Your task to perform on an android device: stop showing notifications on the lock screen Image 0: 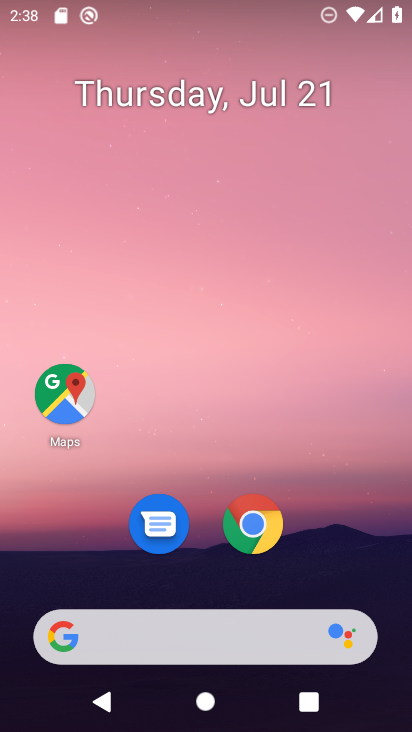
Step 0: drag from (224, 634) to (307, 123)
Your task to perform on an android device: stop showing notifications on the lock screen Image 1: 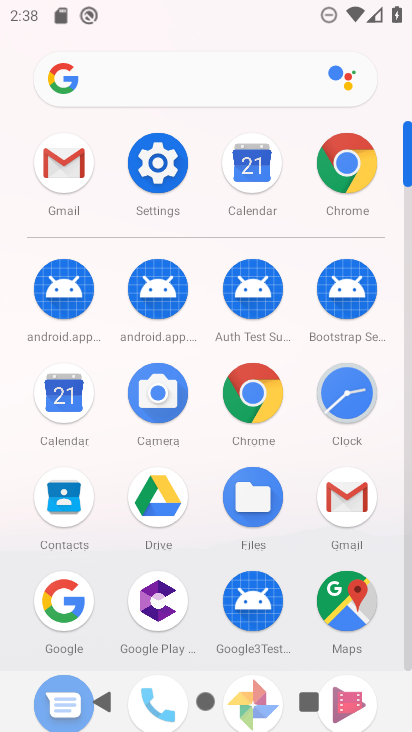
Step 1: click (149, 180)
Your task to perform on an android device: stop showing notifications on the lock screen Image 2: 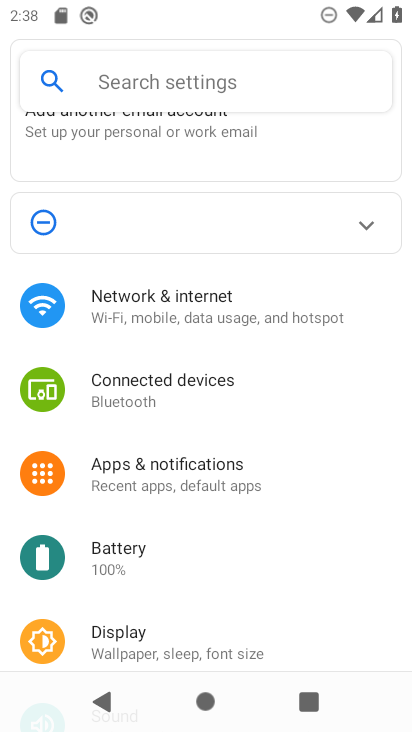
Step 2: drag from (207, 589) to (285, 157)
Your task to perform on an android device: stop showing notifications on the lock screen Image 3: 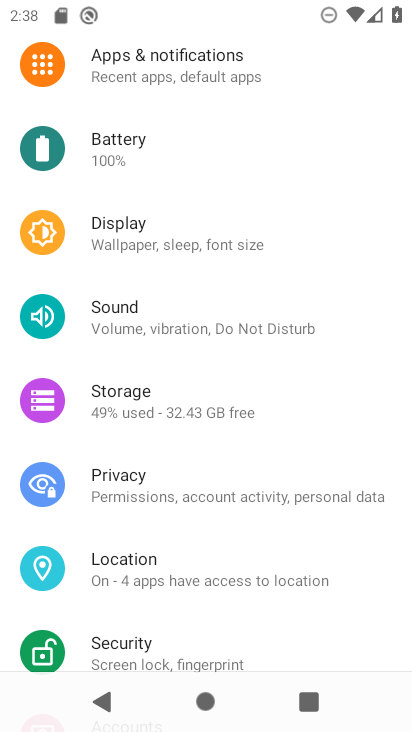
Step 3: drag from (298, 138) to (276, 474)
Your task to perform on an android device: stop showing notifications on the lock screen Image 4: 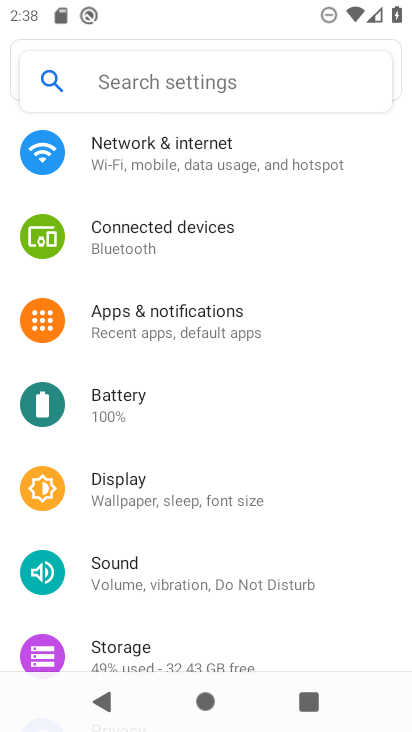
Step 4: click (194, 312)
Your task to perform on an android device: stop showing notifications on the lock screen Image 5: 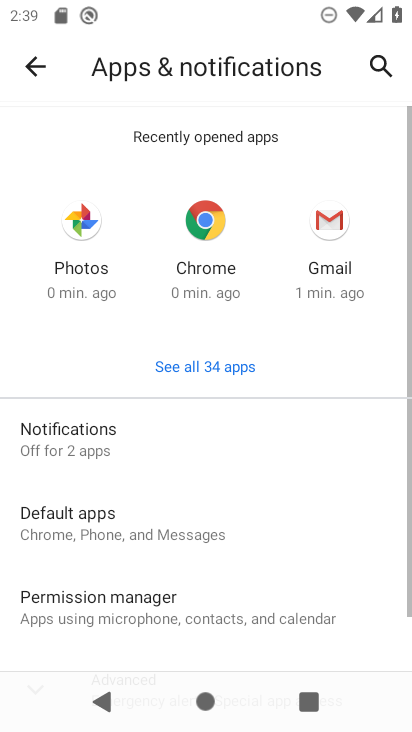
Step 5: click (94, 434)
Your task to perform on an android device: stop showing notifications on the lock screen Image 6: 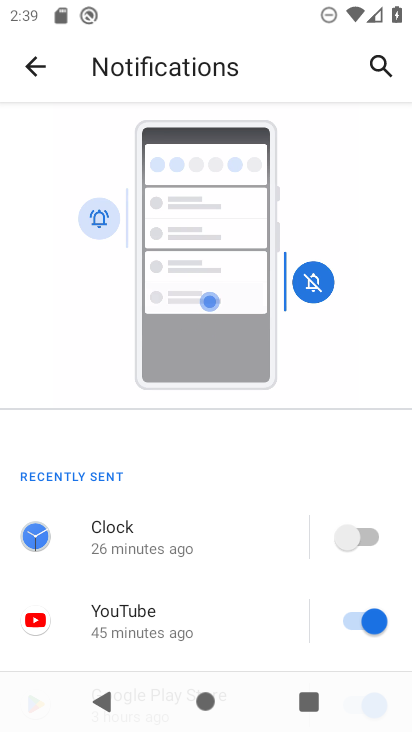
Step 6: drag from (169, 583) to (244, 135)
Your task to perform on an android device: stop showing notifications on the lock screen Image 7: 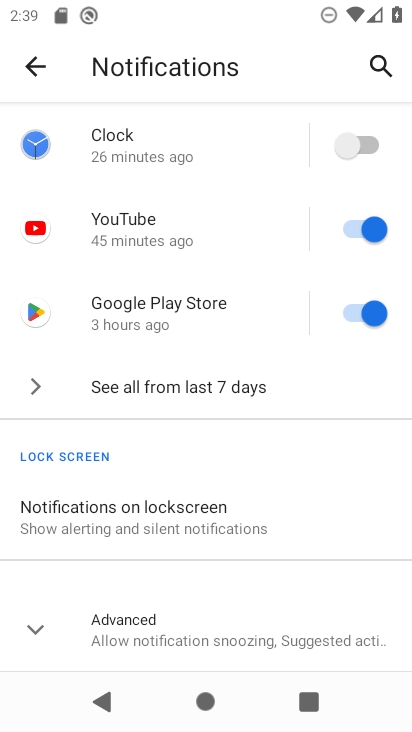
Step 7: click (153, 516)
Your task to perform on an android device: stop showing notifications on the lock screen Image 8: 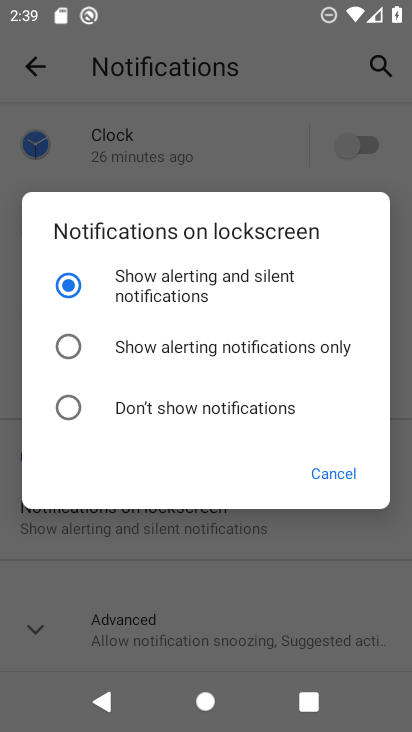
Step 8: click (66, 402)
Your task to perform on an android device: stop showing notifications on the lock screen Image 9: 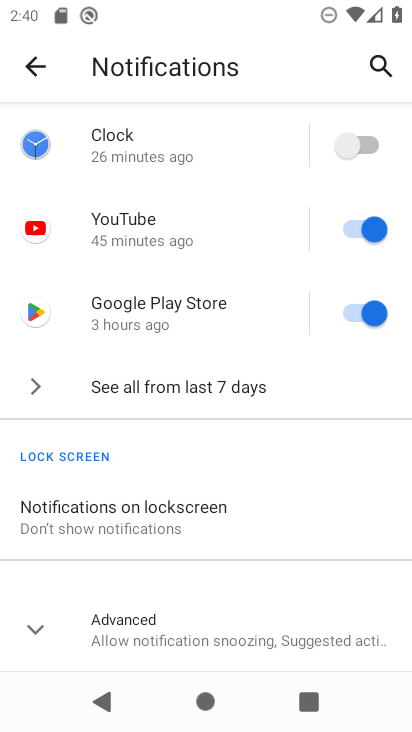
Step 9: task complete